Your task to perform on an android device: change text size in settings app Image 0: 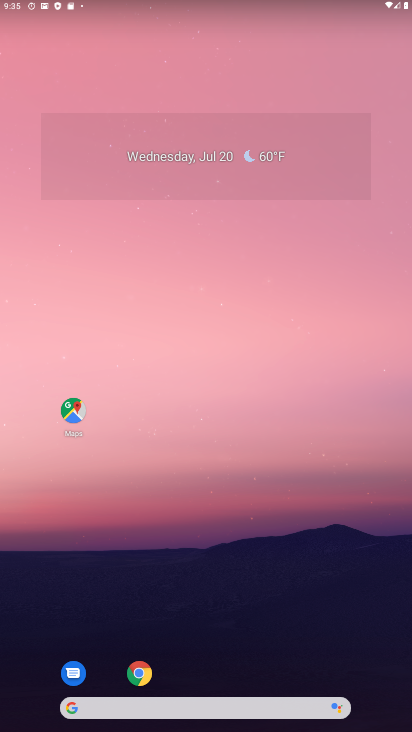
Step 0: drag from (219, 660) to (175, 285)
Your task to perform on an android device: change text size in settings app Image 1: 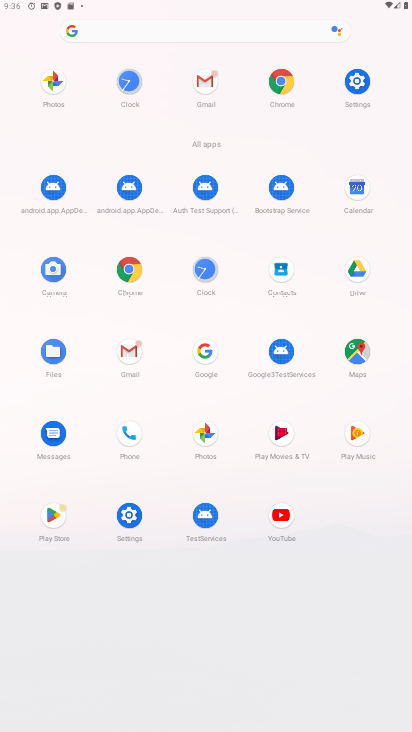
Step 1: click (126, 509)
Your task to perform on an android device: change text size in settings app Image 2: 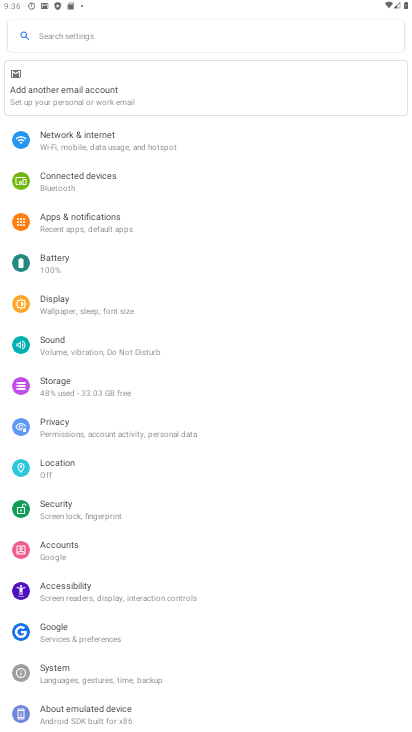
Step 2: drag from (124, 613) to (173, 375)
Your task to perform on an android device: change text size in settings app Image 3: 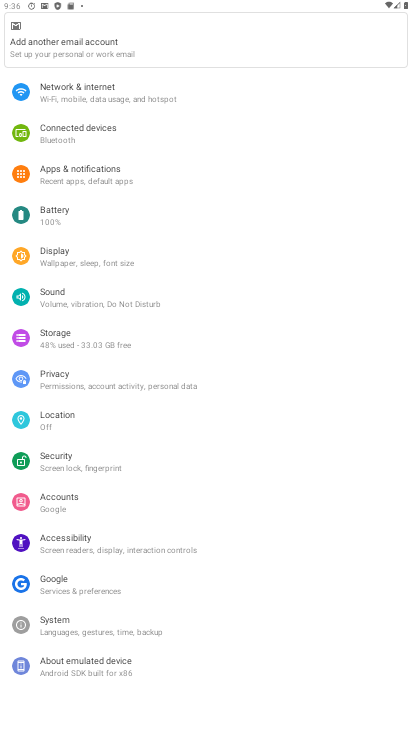
Step 3: click (72, 268)
Your task to perform on an android device: change text size in settings app Image 4: 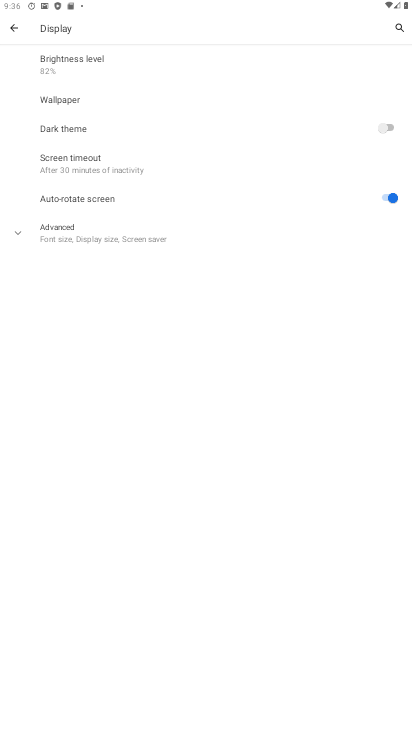
Step 4: click (90, 235)
Your task to perform on an android device: change text size in settings app Image 5: 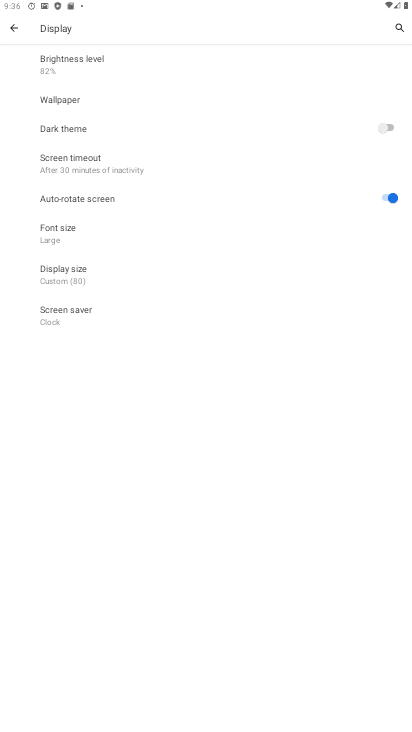
Step 5: click (76, 235)
Your task to perform on an android device: change text size in settings app Image 6: 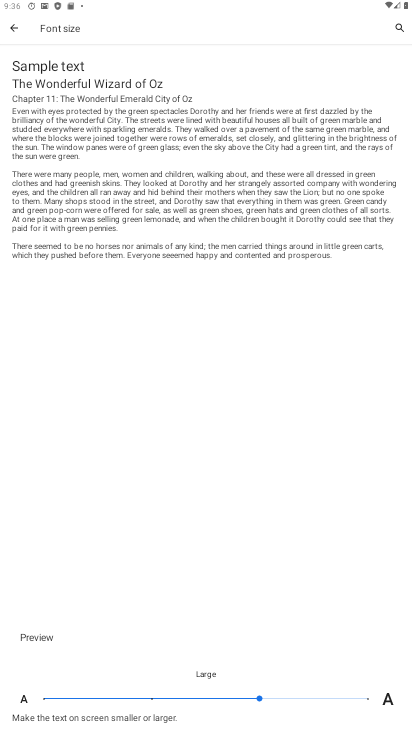
Step 6: click (366, 695)
Your task to perform on an android device: change text size in settings app Image 7: 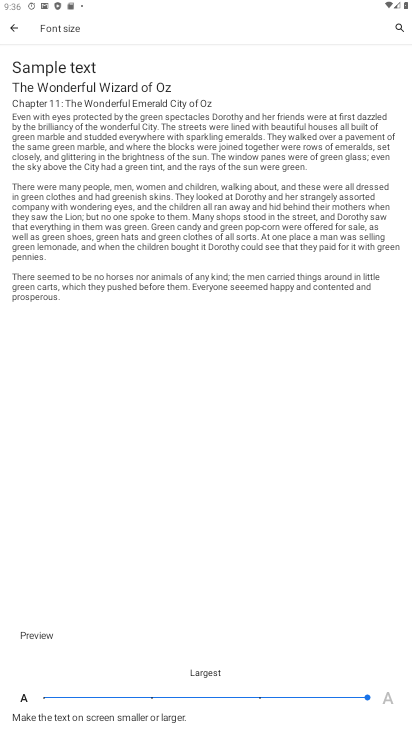
Step 7: task complete